Your task to perform on an android device: change text size in settings app Image 0: 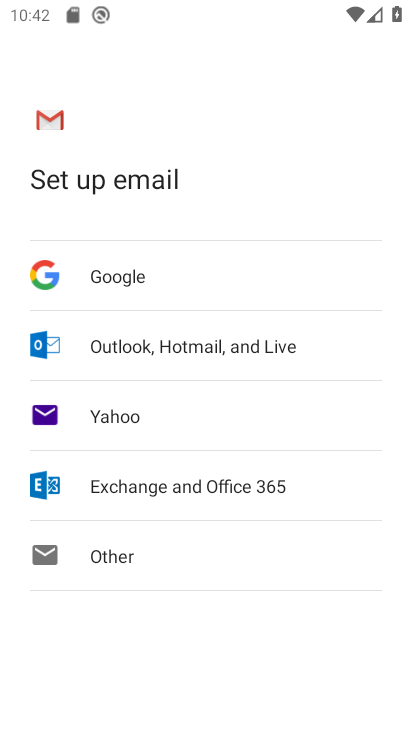
Step 0: press home button
Your task to perform on an android device: change text size in settings app Image 1: 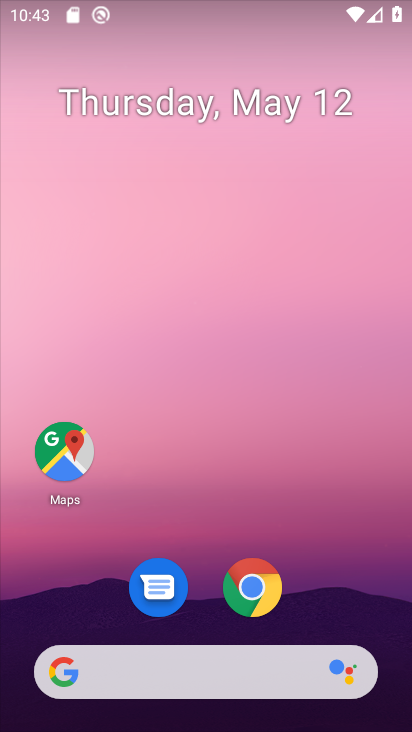
Step 1: drag from (288, 506) to (164, 162)
Your task to perform on an android device: change text size in settings app Image 2: 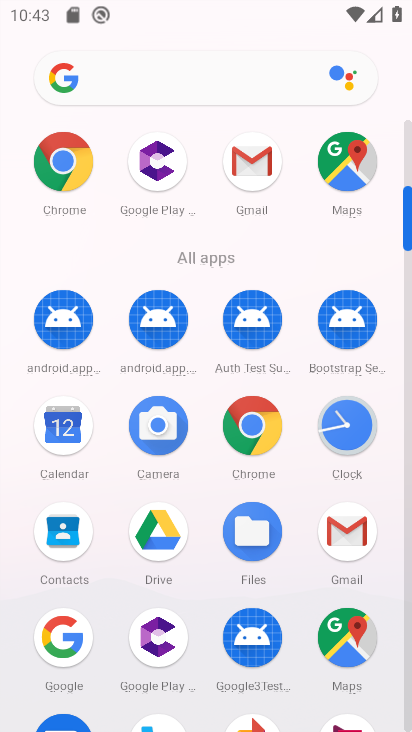
Step 2: drag from (296, 587) to (198, 137)
Your task to perform on an android device: change text size in settings app Image 3: 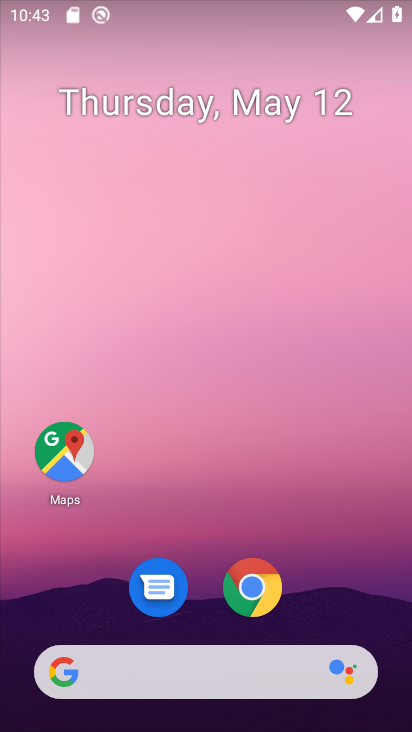
Step 3: drag from (192, 628) to (136, 140)
Your task to perform on an android device: change text size in settings app Image 4: 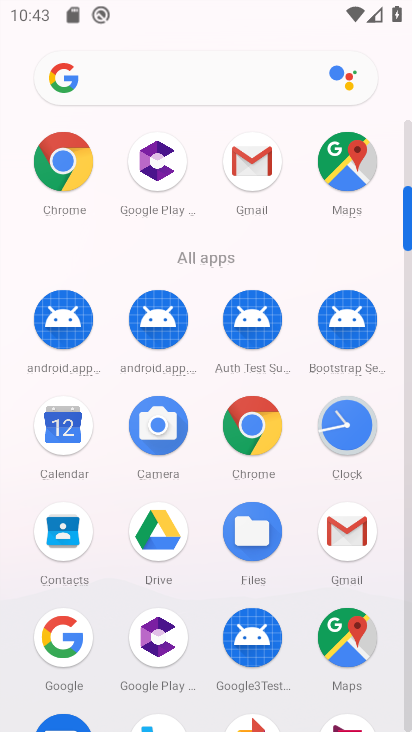
Step 4: click (144, 239)
Your task to perform on an android device: change text size in settings app Image 5: 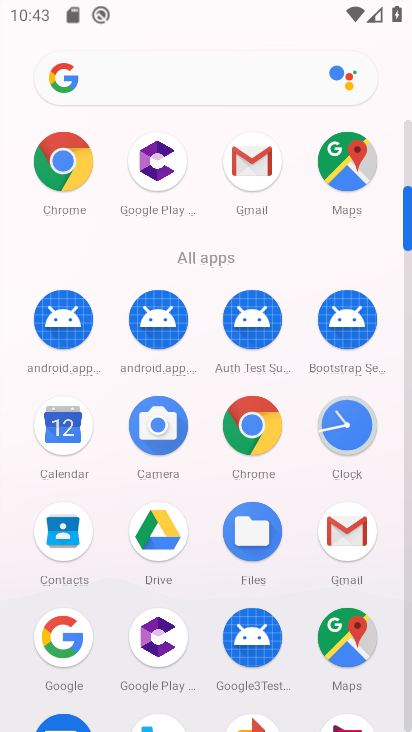
Step 5: drag from (174, 526) to (156, 229)
Your task to perform on an android device: change text size in settings app Image 6: 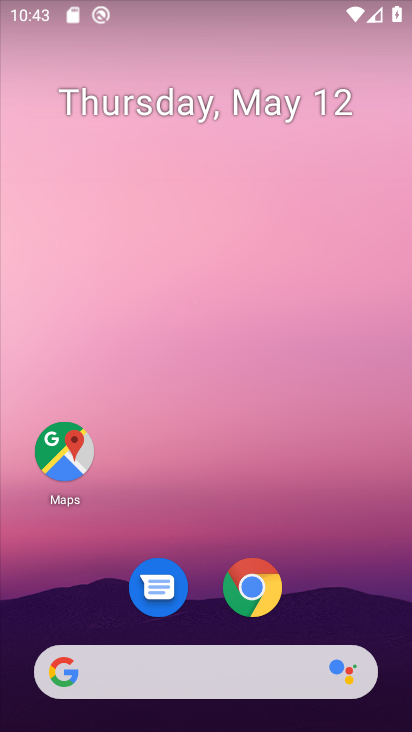
Step 6: drag from (188, 577) to (126, 85)
Your task to perform on an android device: change text size in settings app Image 7: 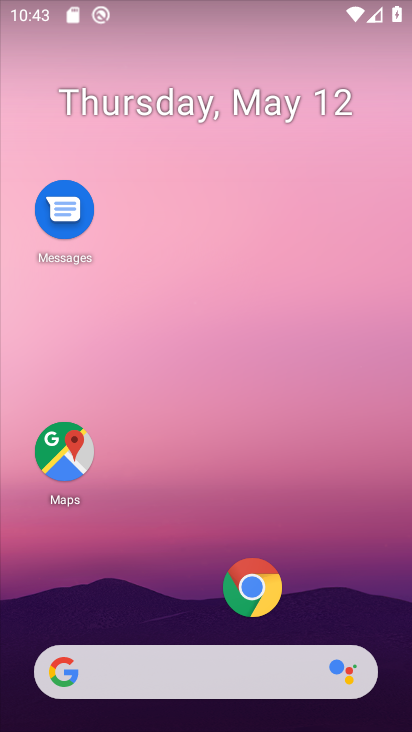
Step 7: drag from (284, 608) to (155, 72)
Your task to perform on an android device: change text size in settings app Image 8: 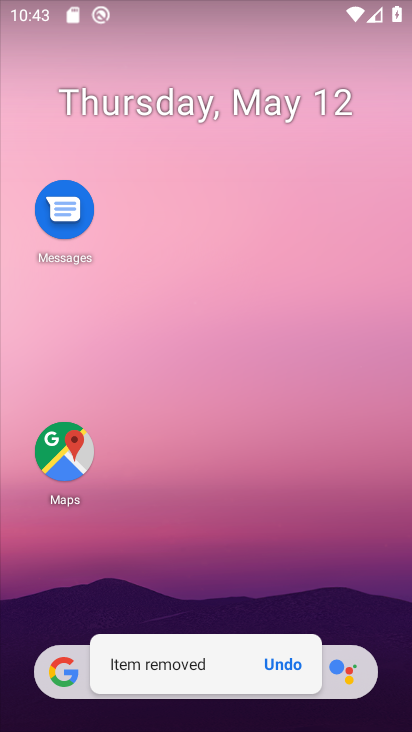
Step 8: drag from (265, 443) to (192, 53)
Your task to perform on an android device: change text size in settings app Image 9: 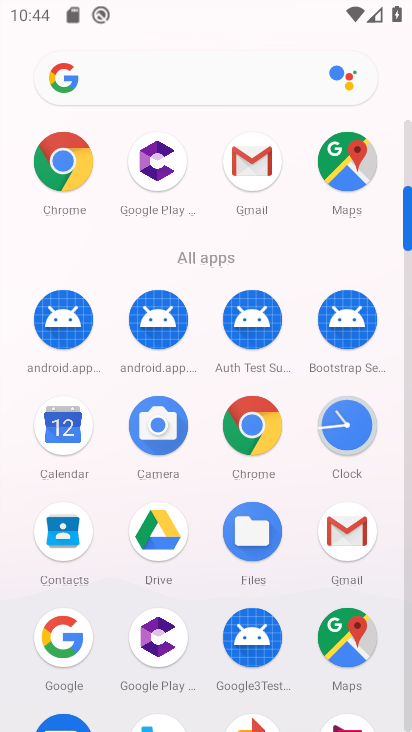
Step 9: drag from (132, 583) to (43, 231)
Your task to perform on an android device: change text size in settings app Image 10: 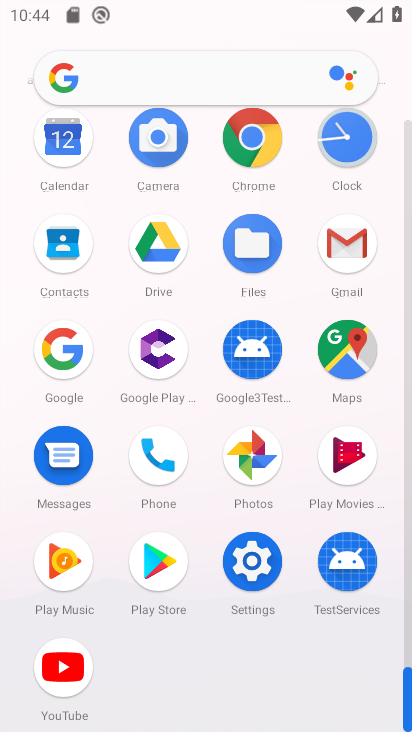
Step 10: click (256, 574)
Your task to perform on an android device: change text size in settings app Image 11: 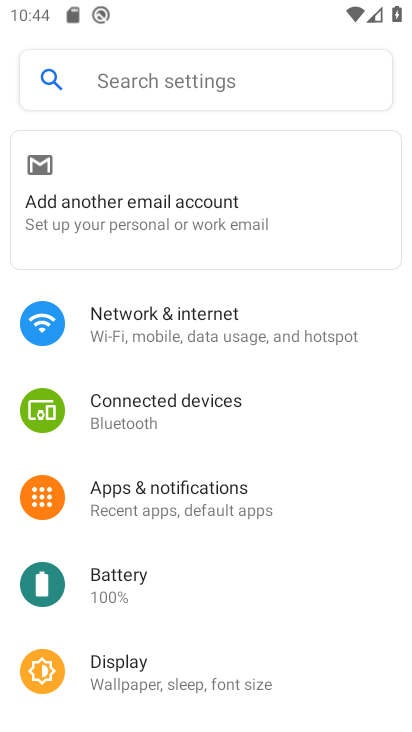
Step 11: click (175, 692)
Your task to perform on an android device: change text size in settings app Image 12: 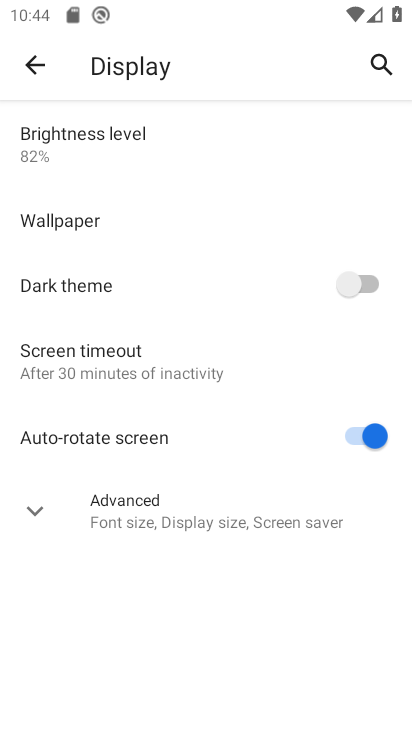
Step 12: click (110, 532)
Your task to perform on an android device: change text size in settings app Image 13: 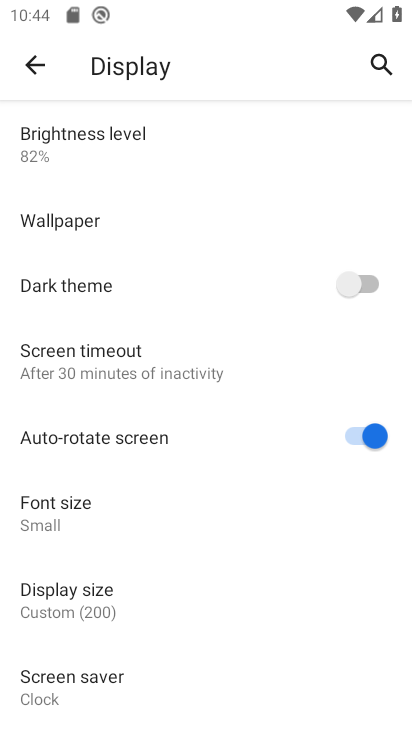
Step 13: click (92, 516)
Your task to perform on an android device: change text size in settings app Image 14: 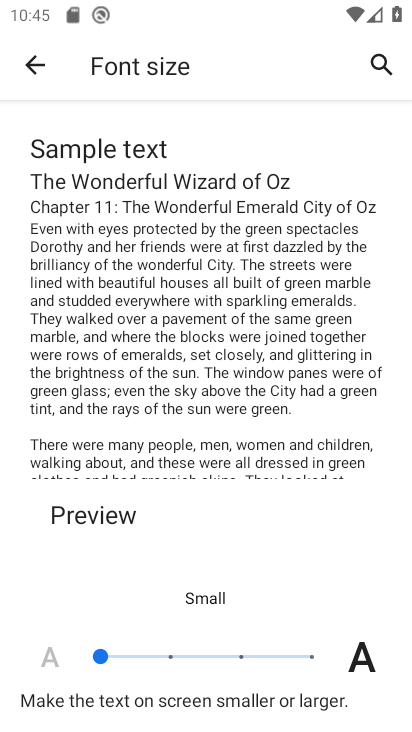
Step 14: task complete